Your task to perform on an android device: Open maps Image 0: 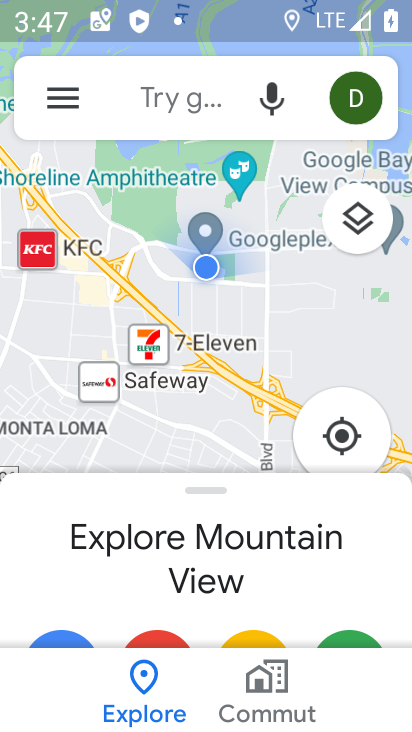
Step 0: task complete